Your task to perform on an android device: change the clock display to digital Image 0: 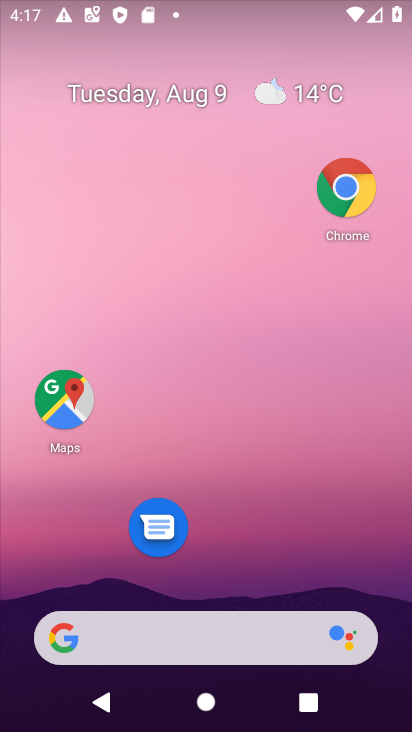
Step 0: drag from (220, 566) to (275, 0)
Your task to perform on an android device: change the clock display to digital Image 1: 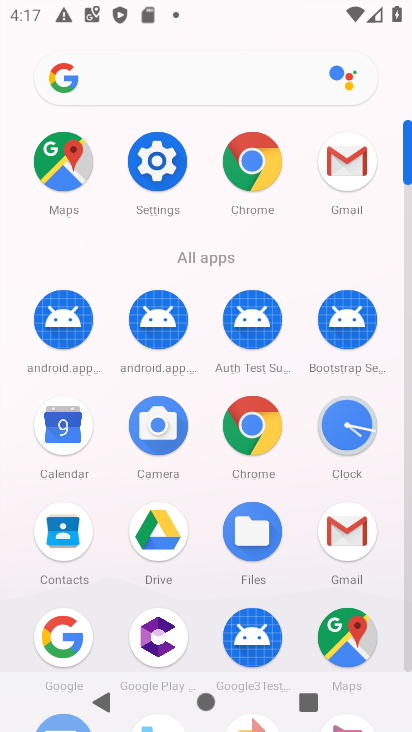
Step 1: click (362, 359)
Your task to perform on an android device: change the clock display to digital Image 2: 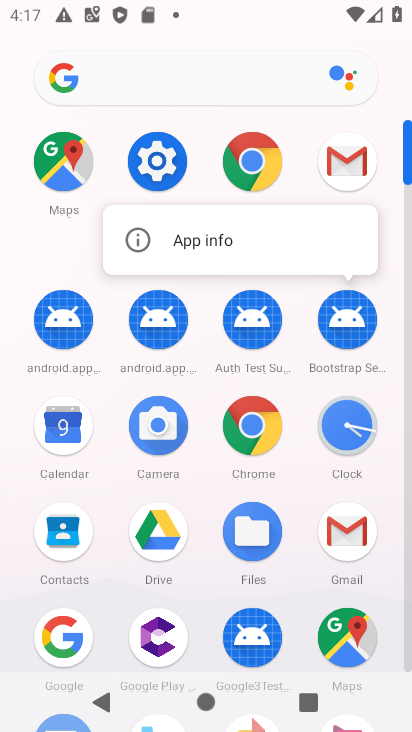
Step 2: click (376, 442)
Your task to perform on an android device: change the clock display to digital Image 3: 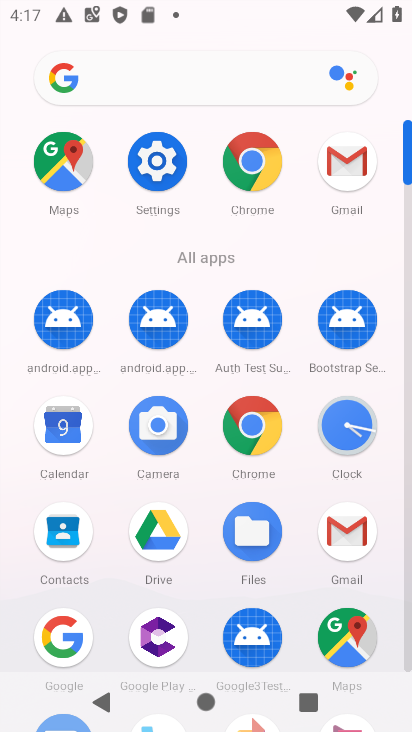
Step 3: click (365, 434)
Your task to perform on an android device: change the clock display to digital Image 4: 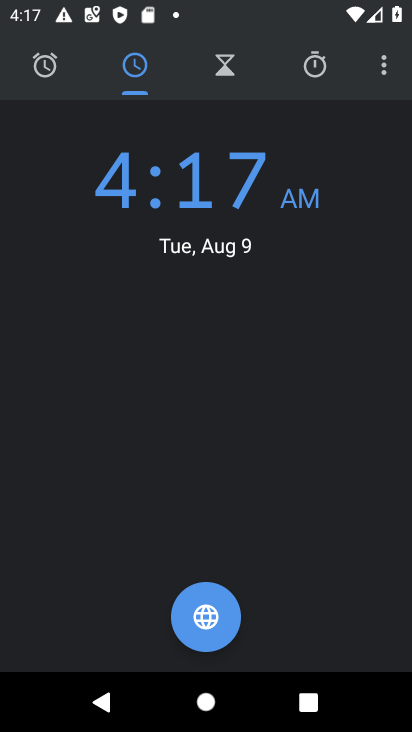
Step 4: click (359, 381)
Your task to perform on an android device: change the clock display to digital Image 5: 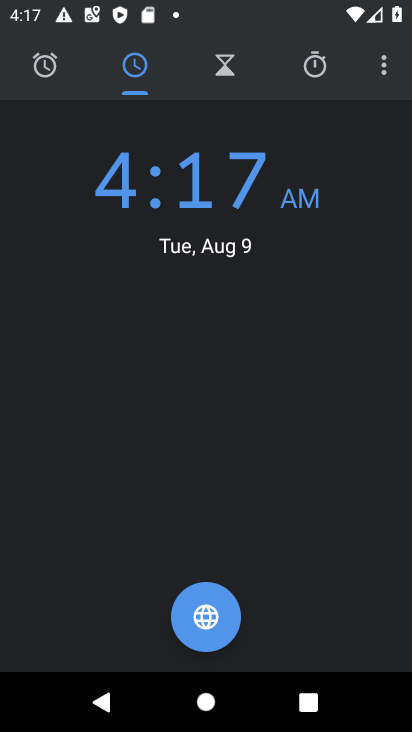
Step 5: click (399, 69)
Your task to perform on an android device: change the clock display to digital Image 6: 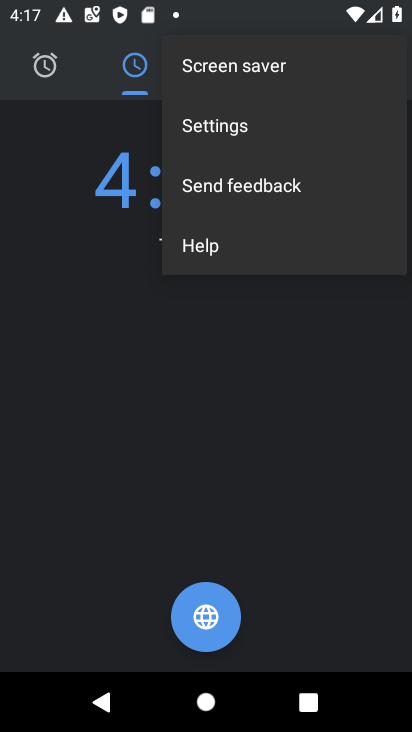
Step 6: click (268, 133)
Your task to perform on an android device: change the clock display to digital Image 7: 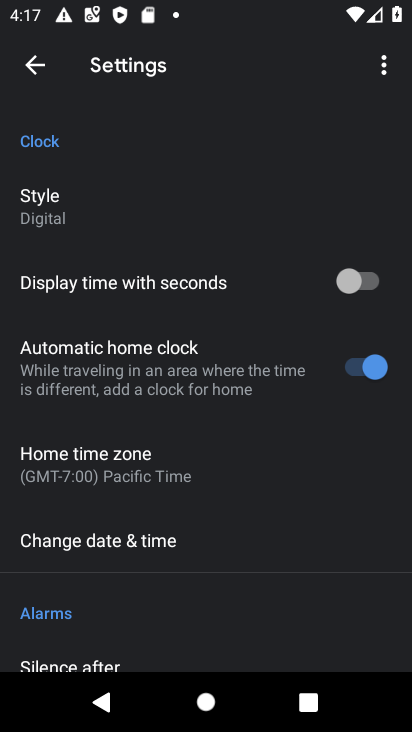
Step 7: task complete